Your task to perform on an android device: open chrome and create a bookmark for the current page Image 0: 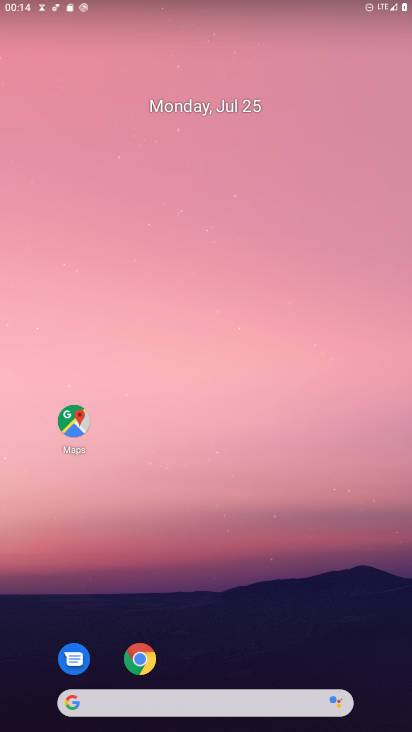
Step 0: click (140, 655)
Your task to perform on an android device: open chrome and create a bookmark for the current page Image 1: 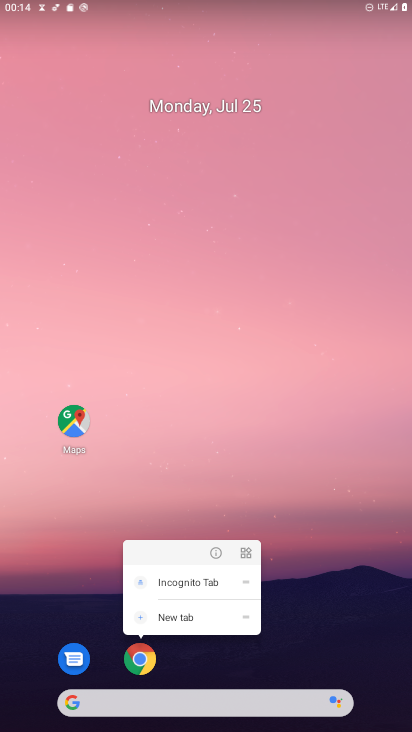
Step 1: click (140, 655)
Your task to perform on an android device: open chrome and create a bookmark for the current page Image 2: 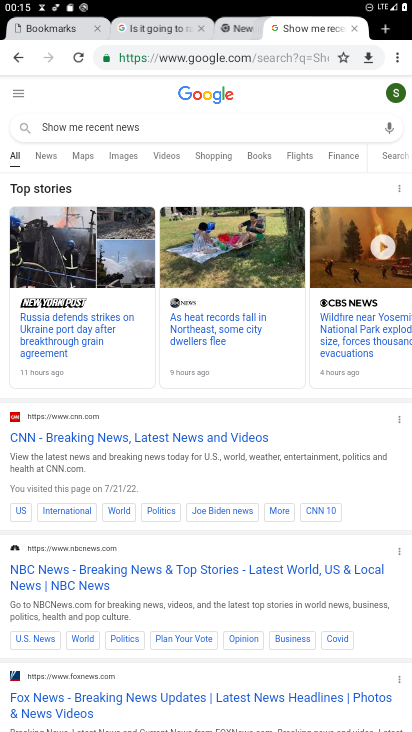
Step 2: click (343, 51)
Your task to perform on an android device: open chrome and create a bookmark for the current page Image 3: 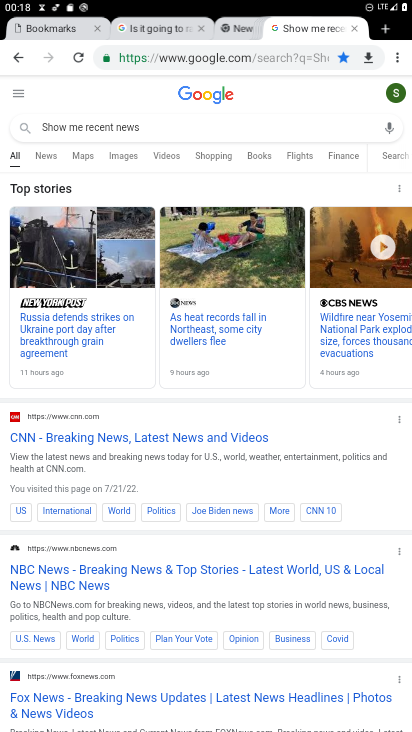
Step 3: task complete